Your task to perform on an android device: Clear the cart on target.com. Add "bose soundlink" to the cart on target.com, then select checkout. Image 0: 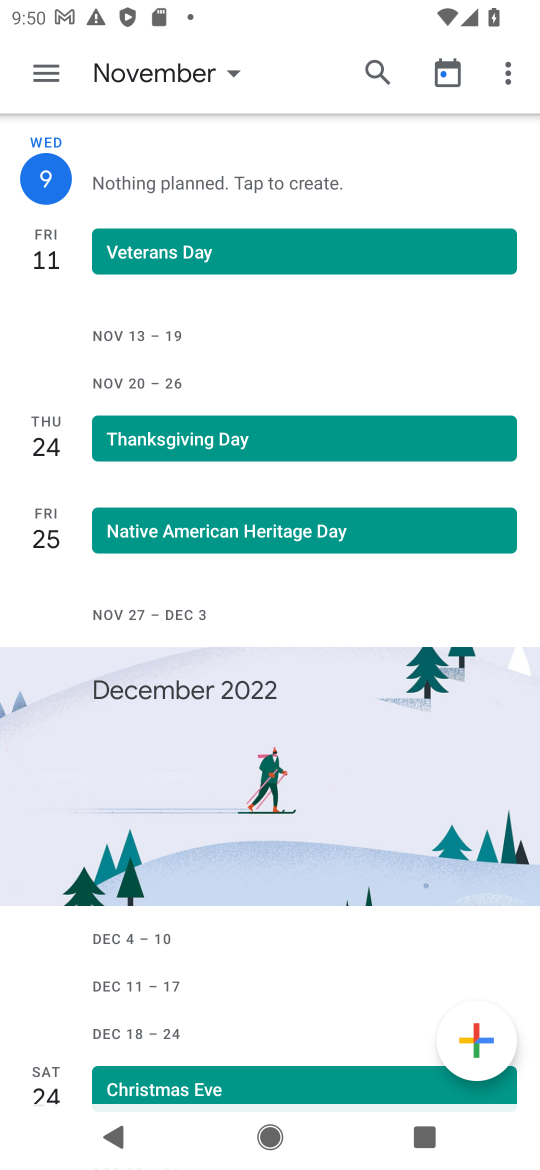
Step 0: press home button
Your task to perform on an android device: Clear the cart on target.com. Add "bose soundlink" to the cart on target.com, then select checkout. Image 1: 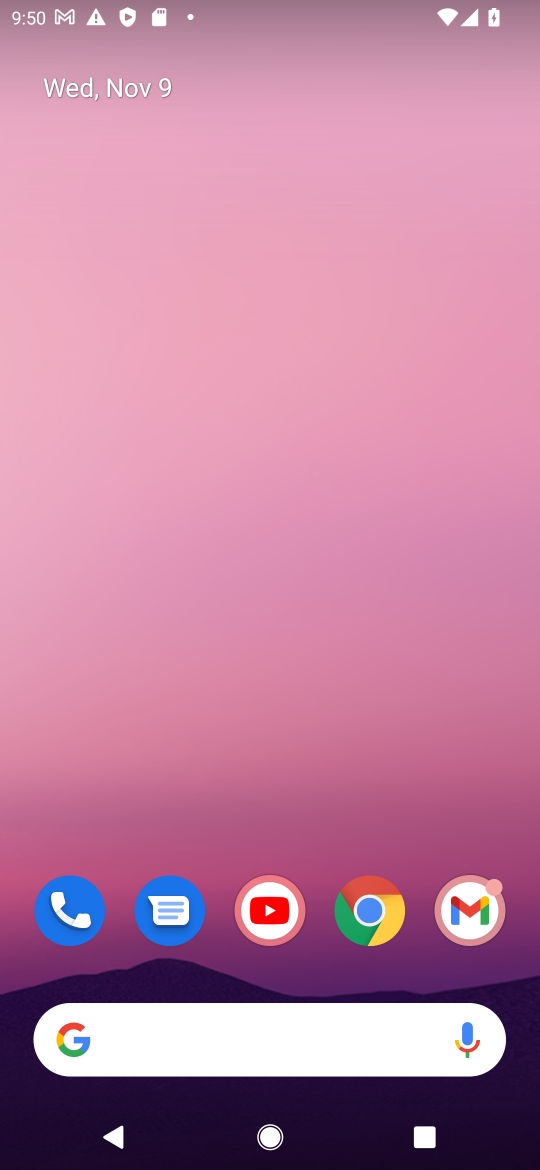
Step 1: click (362, 908)
Your task to perform on an android device: Clear the cart on target.com. Add "bose soundlink" to the cart on target.com, then select checkout. Image 2: 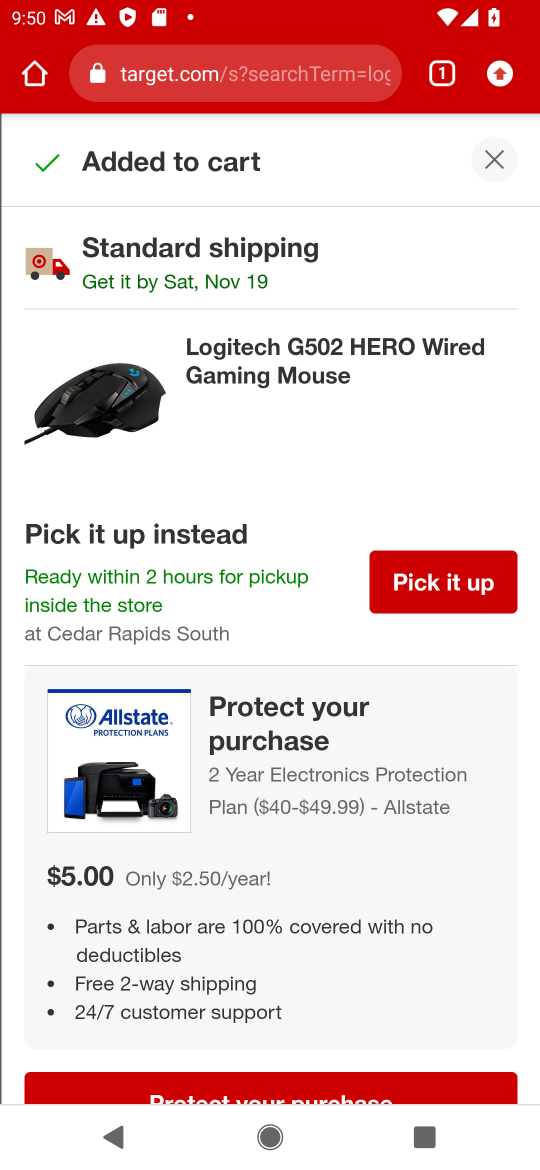
Step 2: click (491, 152)
Your task to perform on an android device: Clear the cart on target.com. Add "bose soundlink" to the cart on target.com, then select checkout. Image 3: 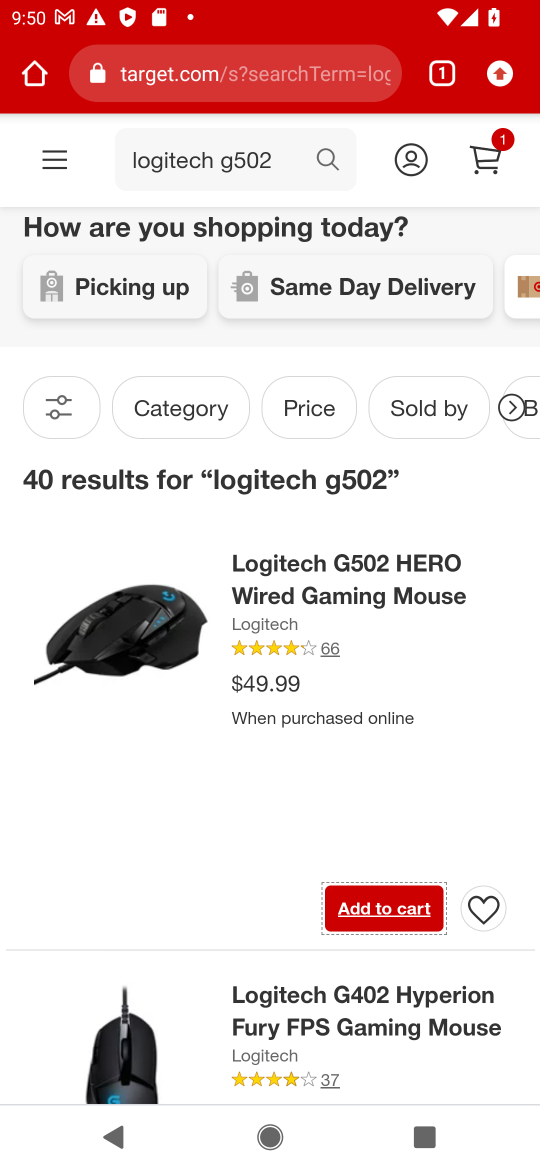
Step 3: click (483, 157)
Your task to perform on an android device: Clear the cart on target.com. Add "bose soundlink" to the cart on target.com, then select checkout. Image 4: 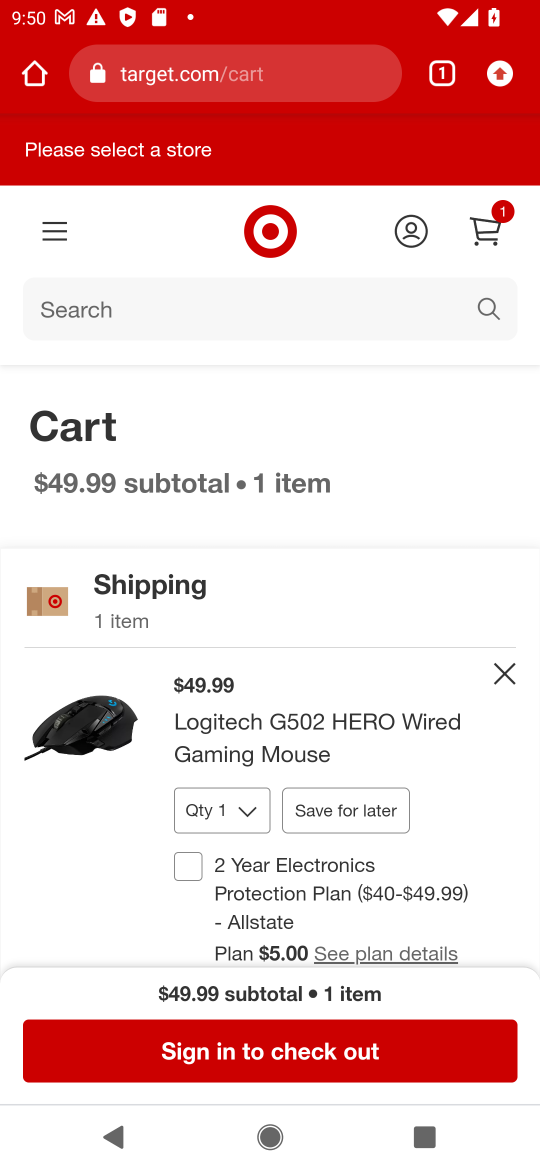
Step 4: drag from (253, 872) to (254, 506)
Your task to perform on an android device: Clear the cart on target.com. Add "bose soundlink" to the cart on target.com, then select checkout. Image 5: 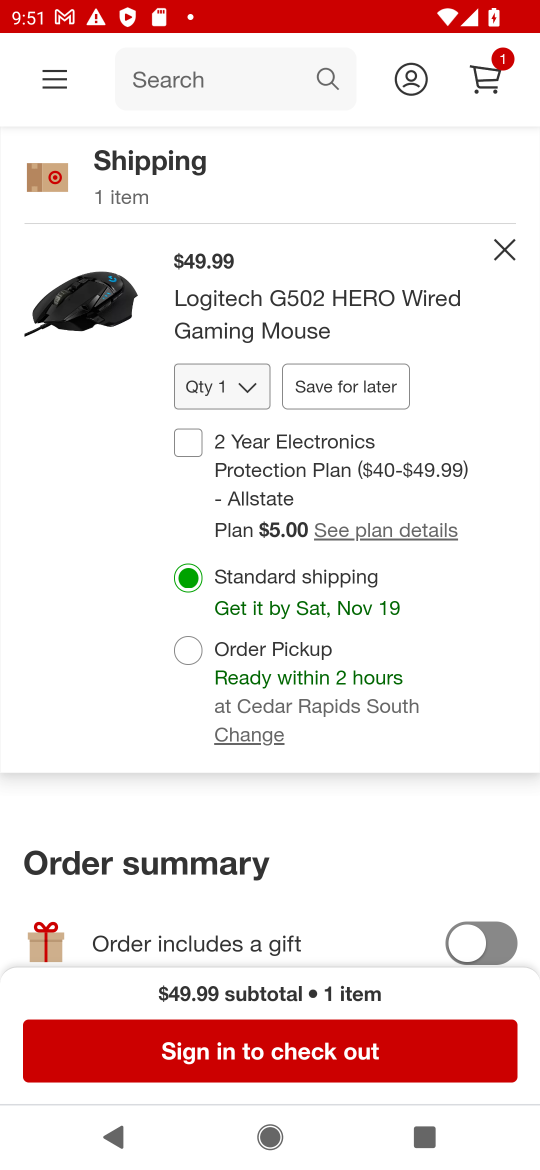
Step 5: click (490, 254)
Your task to perform on an android device: Clear the cart on target.com. Add "bose soundlink" to the cart on target.com, then select checkout. Image 6: 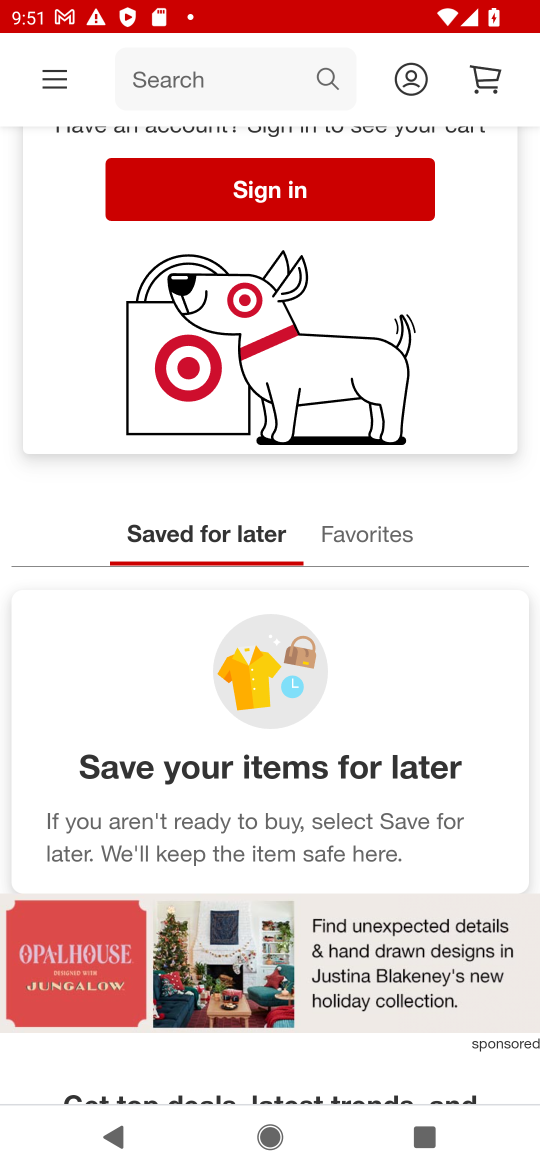
Step 6: drag from (331, 299) to (395, 816)
Your task to perform on an android device: Clear the cart on target.com. Add "bose soundlink" to the cart on target.com, then select checkout. Image 7: 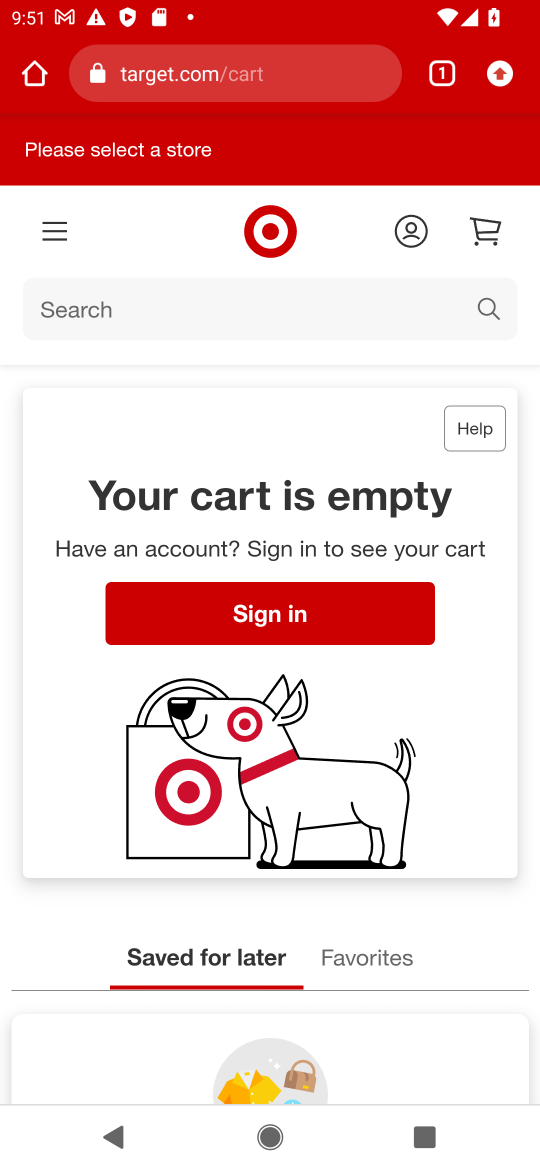
Step 7: click (484, 311)
Your task to perform on an android device: Clear the cart on target.com. Add "bose soundlink" to the cart on target.com, then select checkout. Image 8: 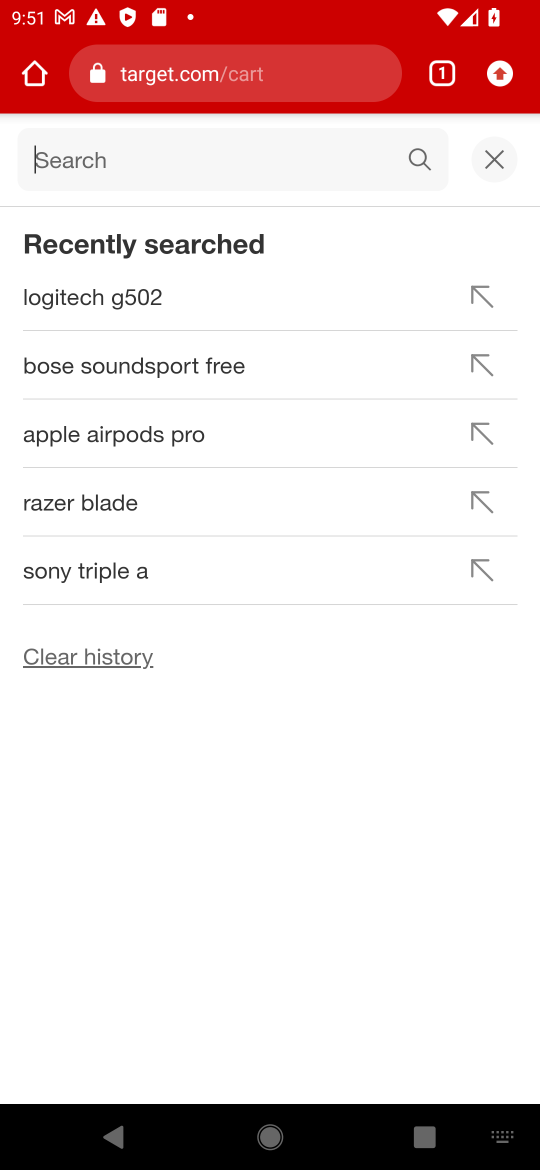
Step 8: type "bose soundlink"
Your task to perform on an android device: Clear the cart on target.com. Add "bose soundlink" to the cart on target.com, then select checkout. Image 9: 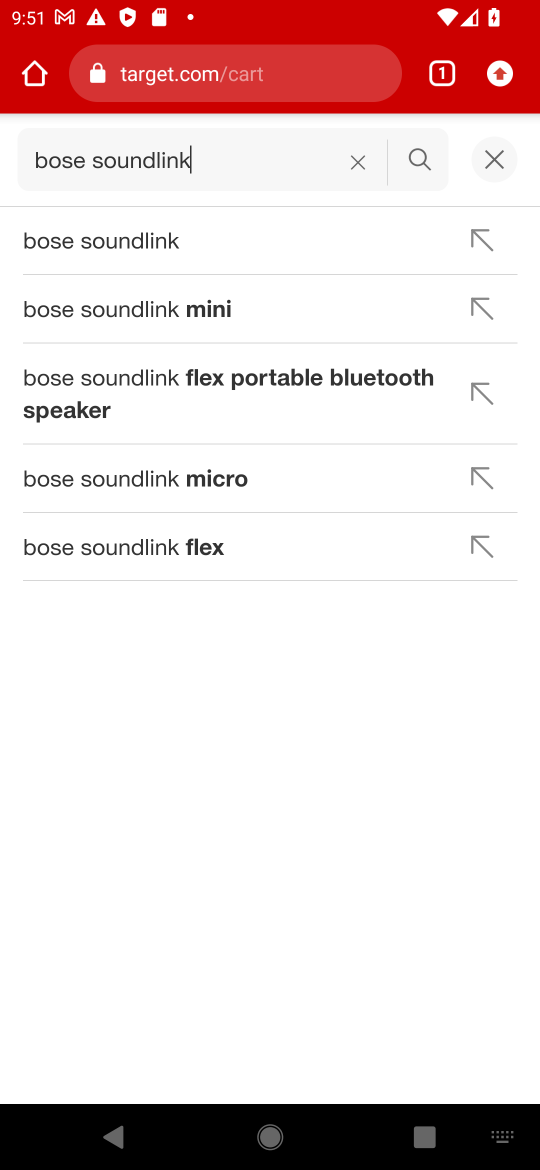
Step 9: click (121, 247)
Your task to perform on an android device: Clear the cart on target.com. Add "bose soundlink" to the cart on target.com, then select checkout. Image 10: 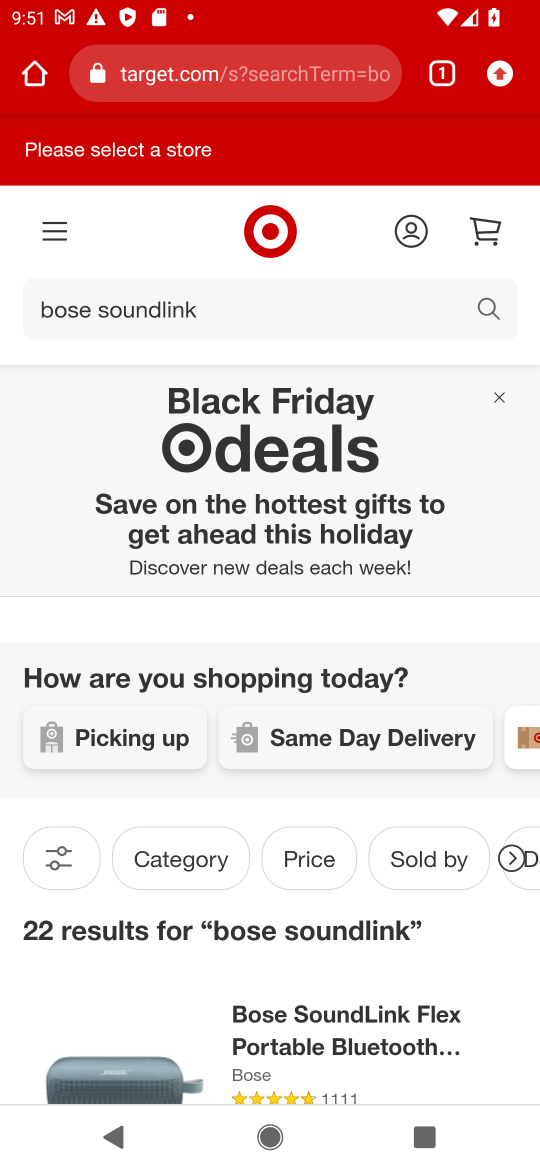
Step 10: drag from (272, 875) to (323, 377)
Your task to perform on an android device: Clear the cart on target.com. Add "bose soundlink" to the cart on target.com, then select checkout. Image 11: 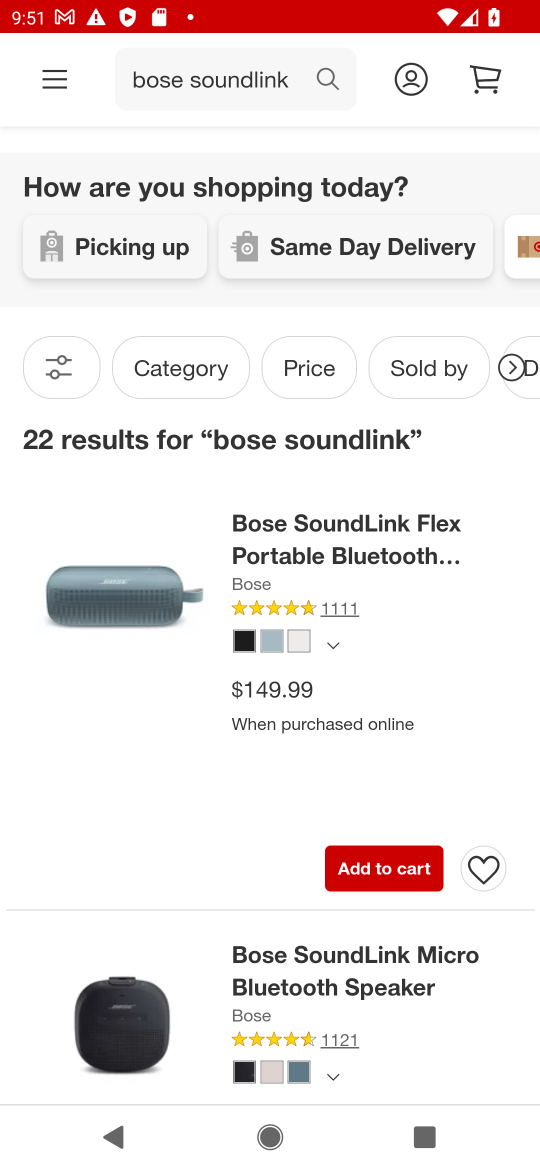
Step 11: click (383, 875)
Your task to perform on an android device: Clear the cart on target.com. Add "bose soundlink" to the cart on target.com, then select checkout. Image 12: 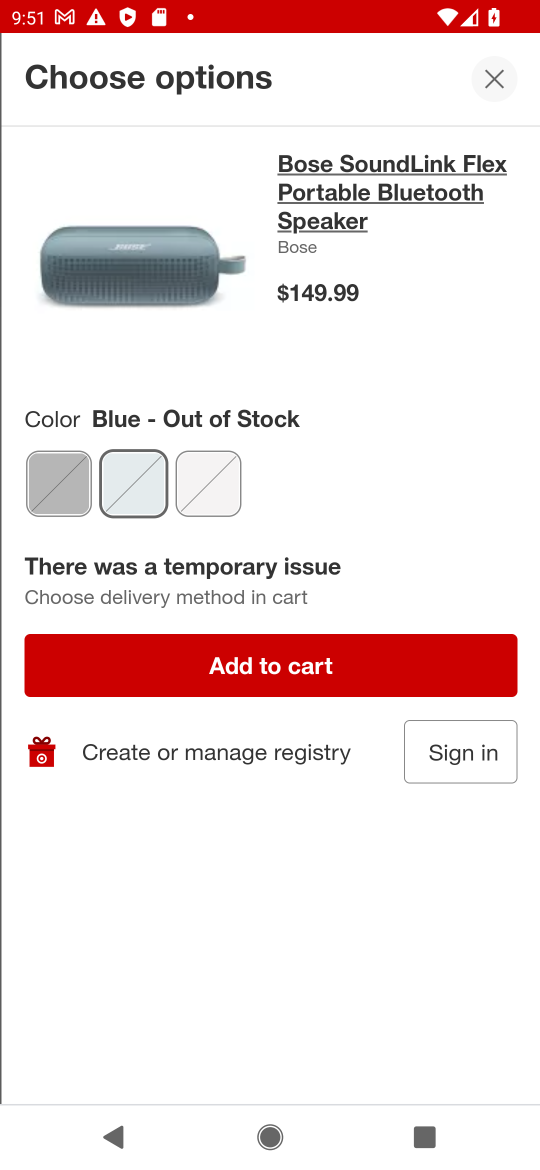
Step 12: click (251, 669)
Your task to perform on an android device: Clear the cart on target.com. Add "bose soundlink" to the cart on target.com, then select checkout. Image 13: 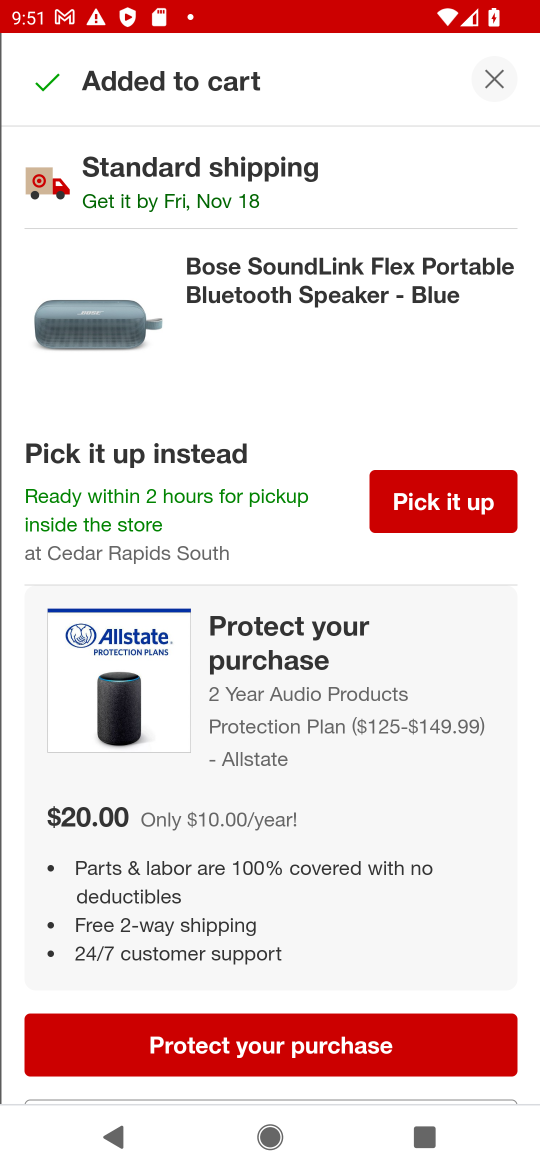
Step 13: click (502, 75)
Your task to perform on an android device: Clear the cart on target.com. Add "bose soundlink" to the cart on target.com, then select checkout. Image 14: 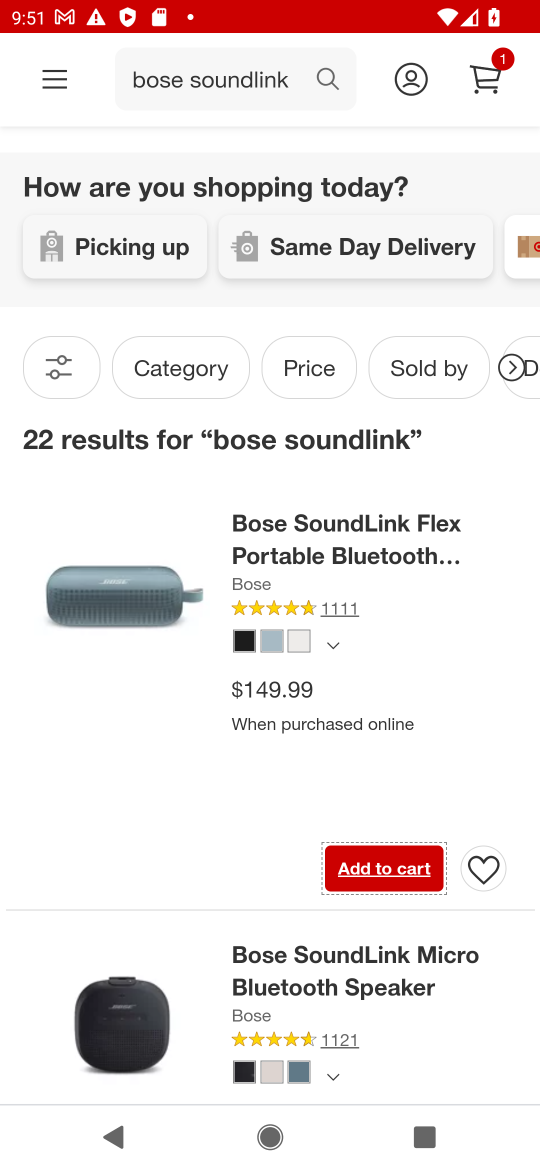
Step 14: click (478, 70)
Your task to perform on an android device: Clear the cart on target.com. Add "bose soundlink" to the cart on target.com, then select checkout. Image 15: 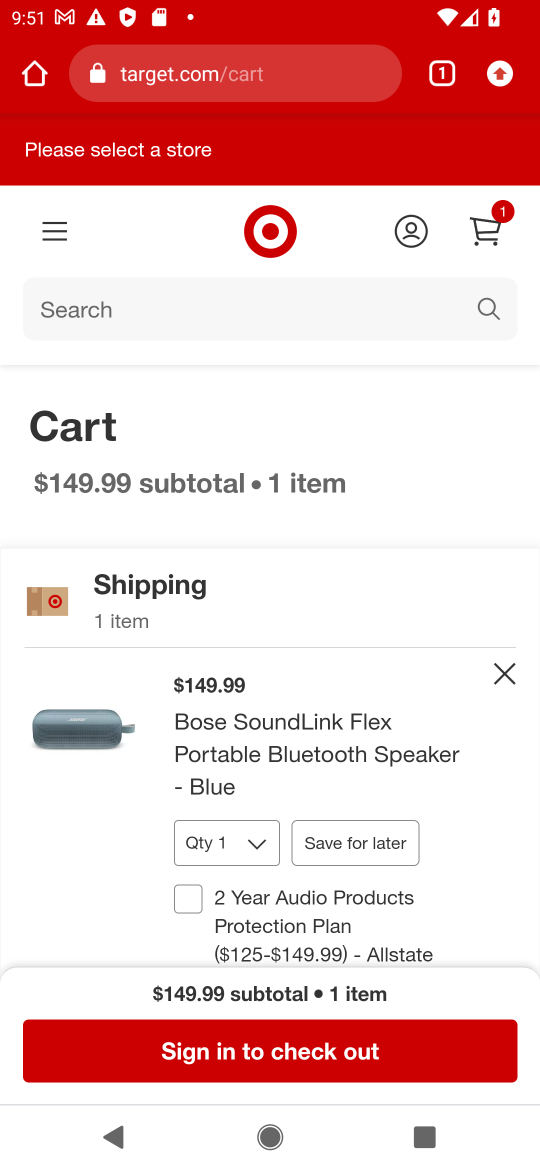
Step 15: click (290, 1034)
Your task to perform on an android device: Clear the cart on target.com. Add "bose soundlink" to the cart on target.com, then select checkout. Image 16: 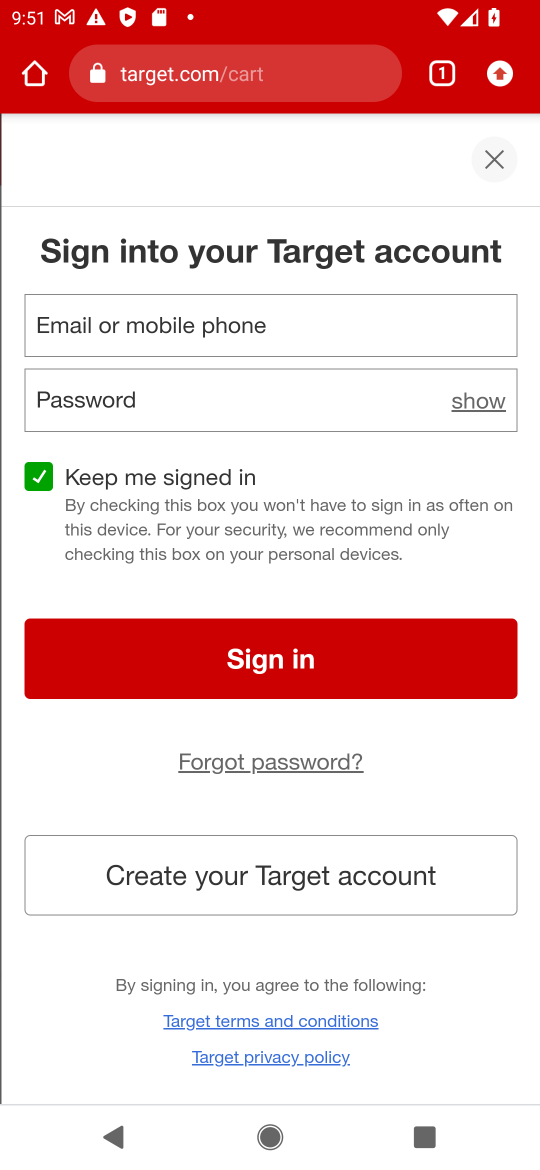
Step 16: task complete